Your task to perform on an android device: View the shopping cart on bestbuy. Add "logitech g pro" to the cart on bestbuy, then select checkout. Image 0: 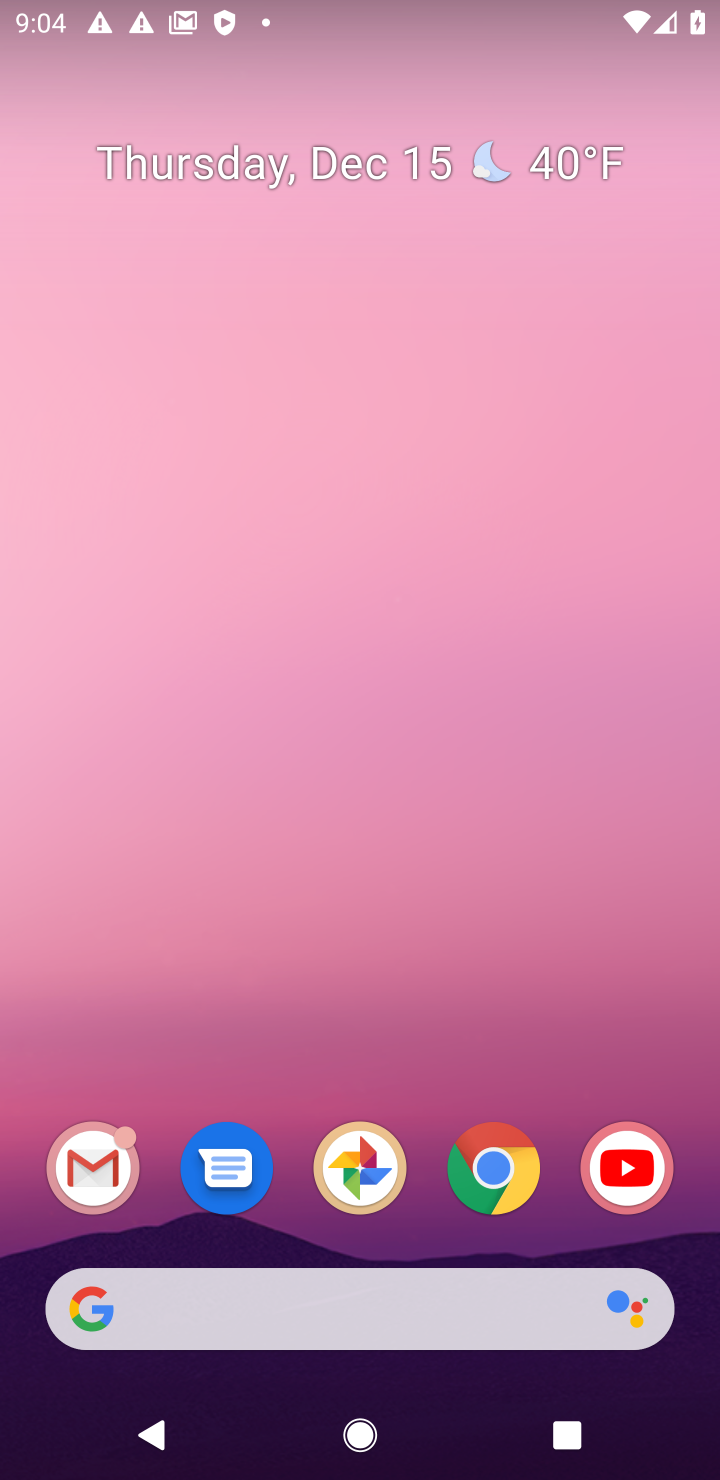
Step 0: task complete